Your task to perform on an android device: install app "Microsoft Outlook" Image 0: 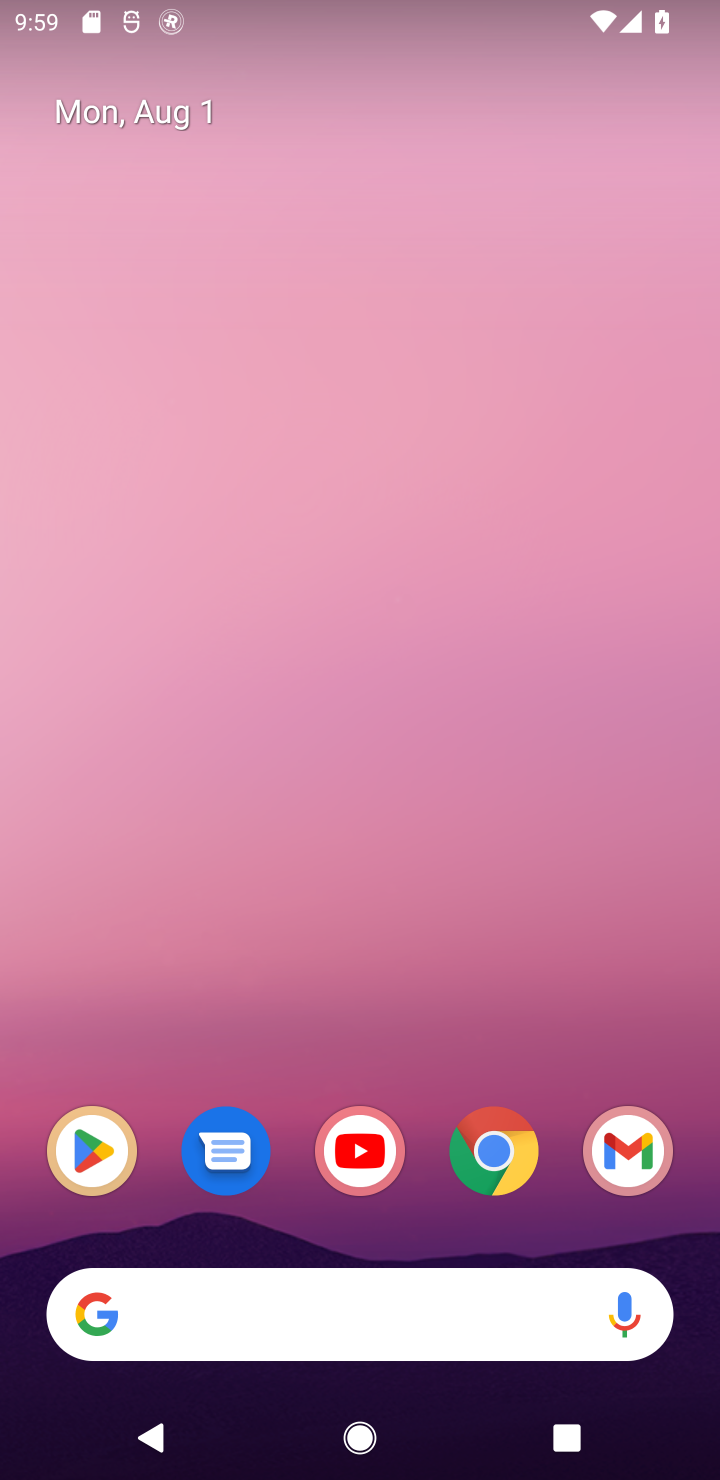
Step 0: click (87, 1144)
Your task to perform on an android device: install app "Microsoft Outlook" Image 1: 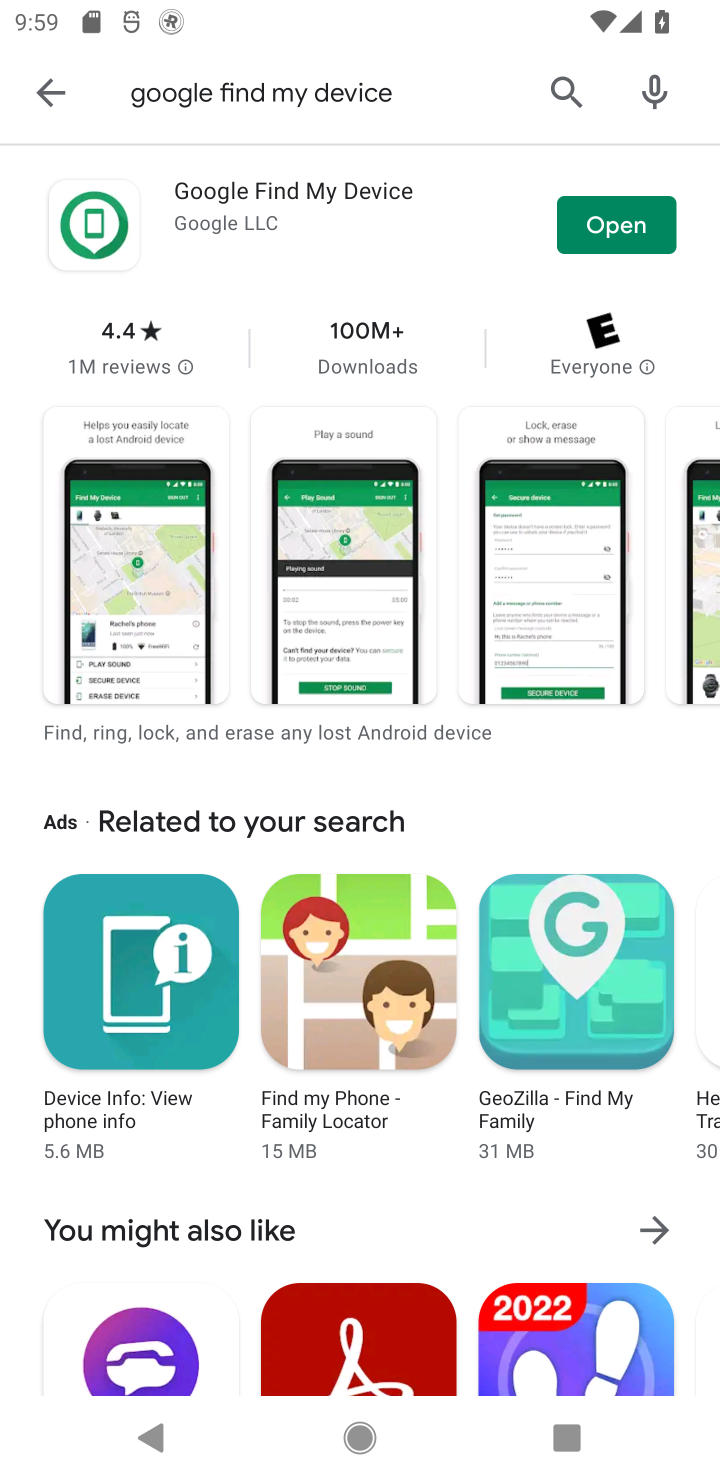
Step 1: click (576, 94)
Your task to perform on an android device: install app "Microsoft Outlook" Image 2: 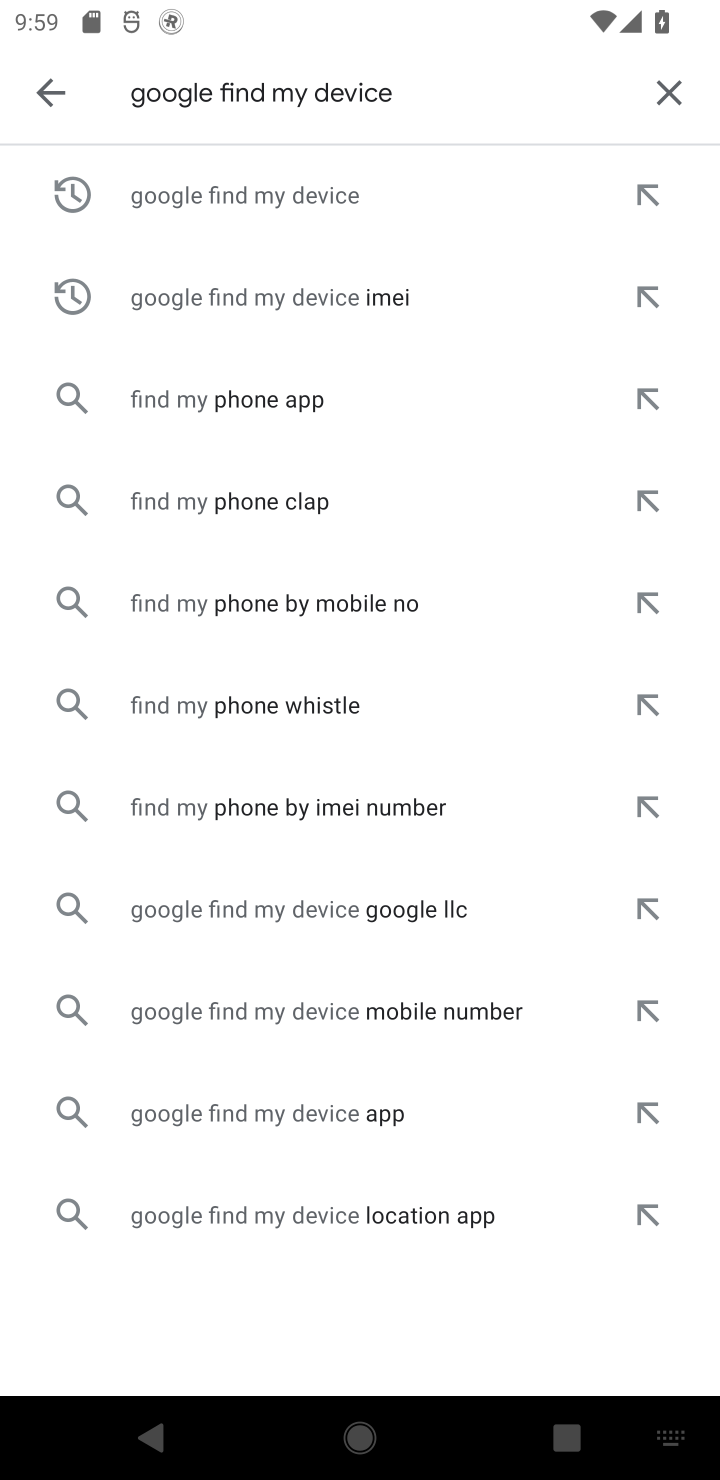
Step 2: click (645, 107)
Your task to perform on an android device: install app "Microsoft Outlook" Image 3: 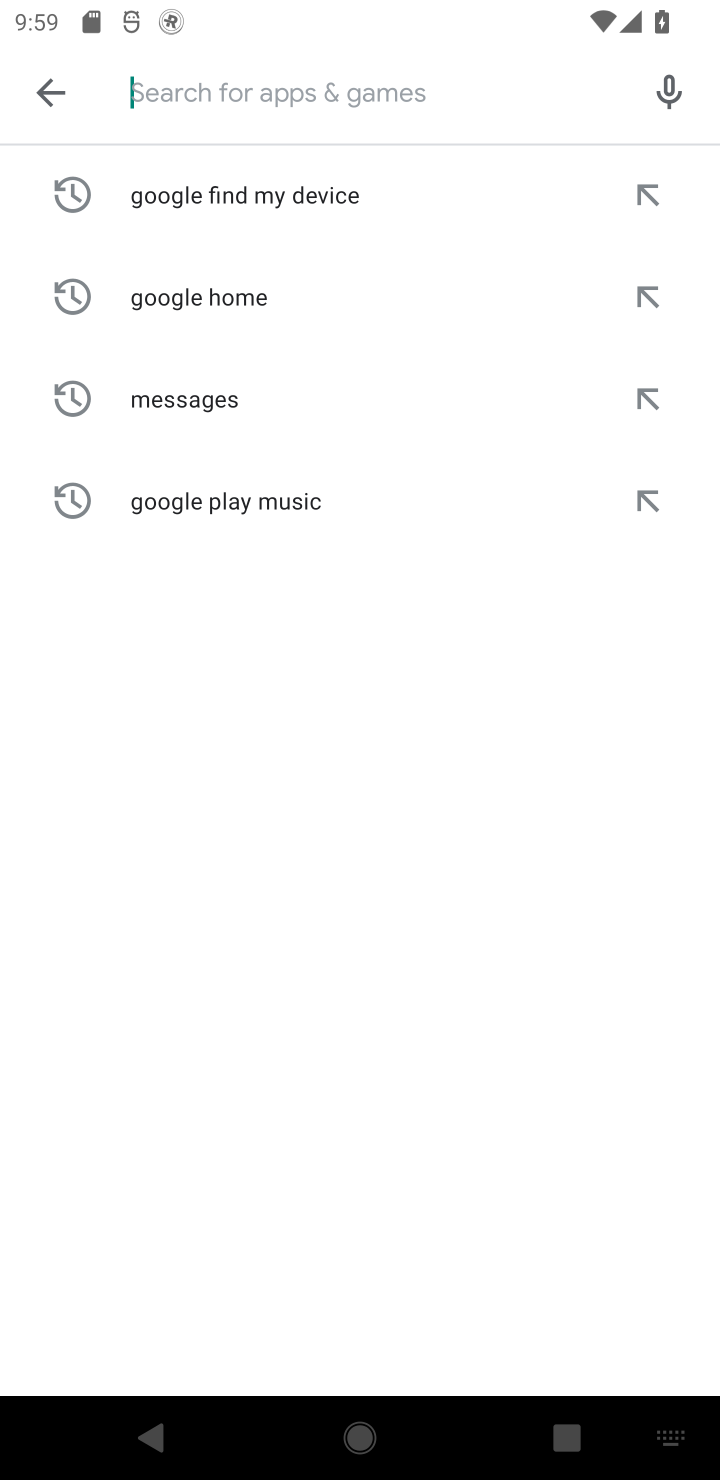
Step 3: type "Microsoft Outlook"
Your task to perform on an android device: install app "Microsoft Outlook" Image 4: 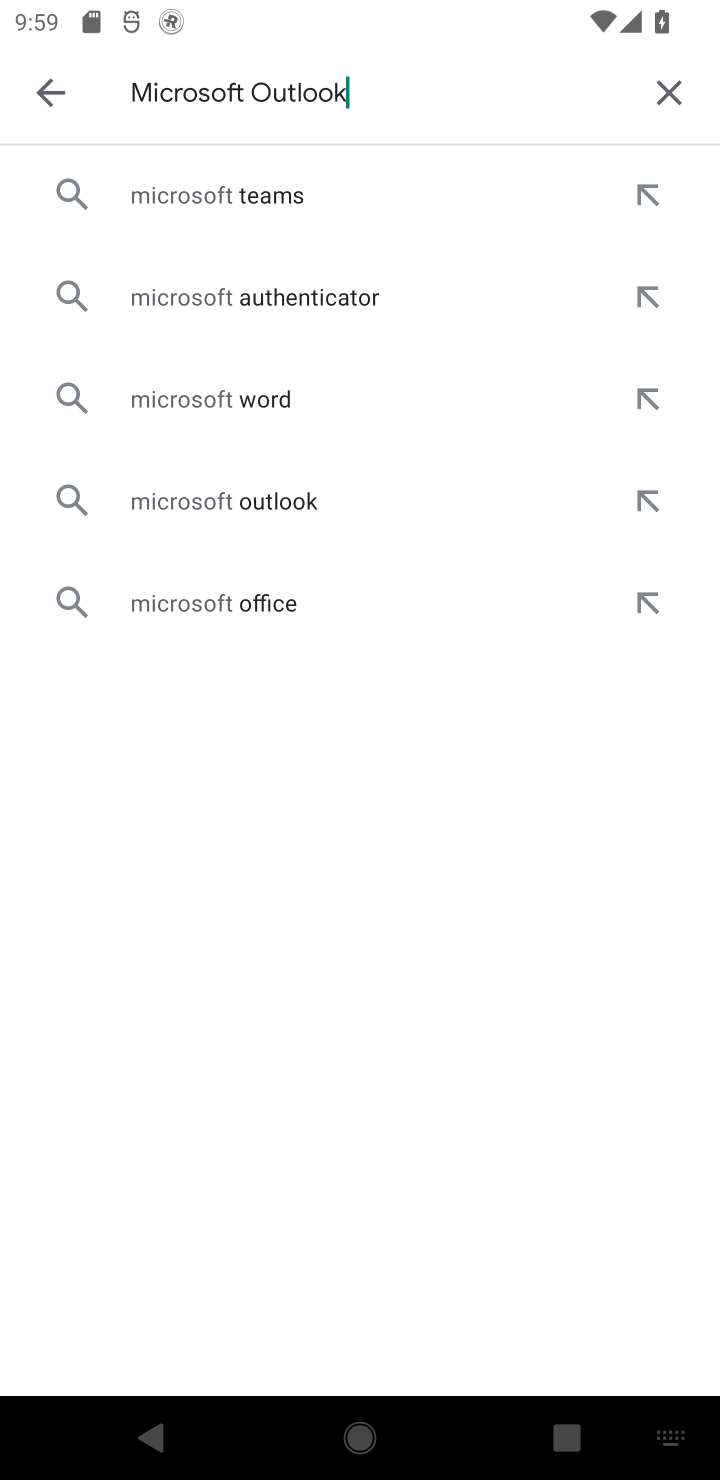
Step 4: type ""
Your task to perform on an android device: install app "Microsoft Outlook" Image 5: 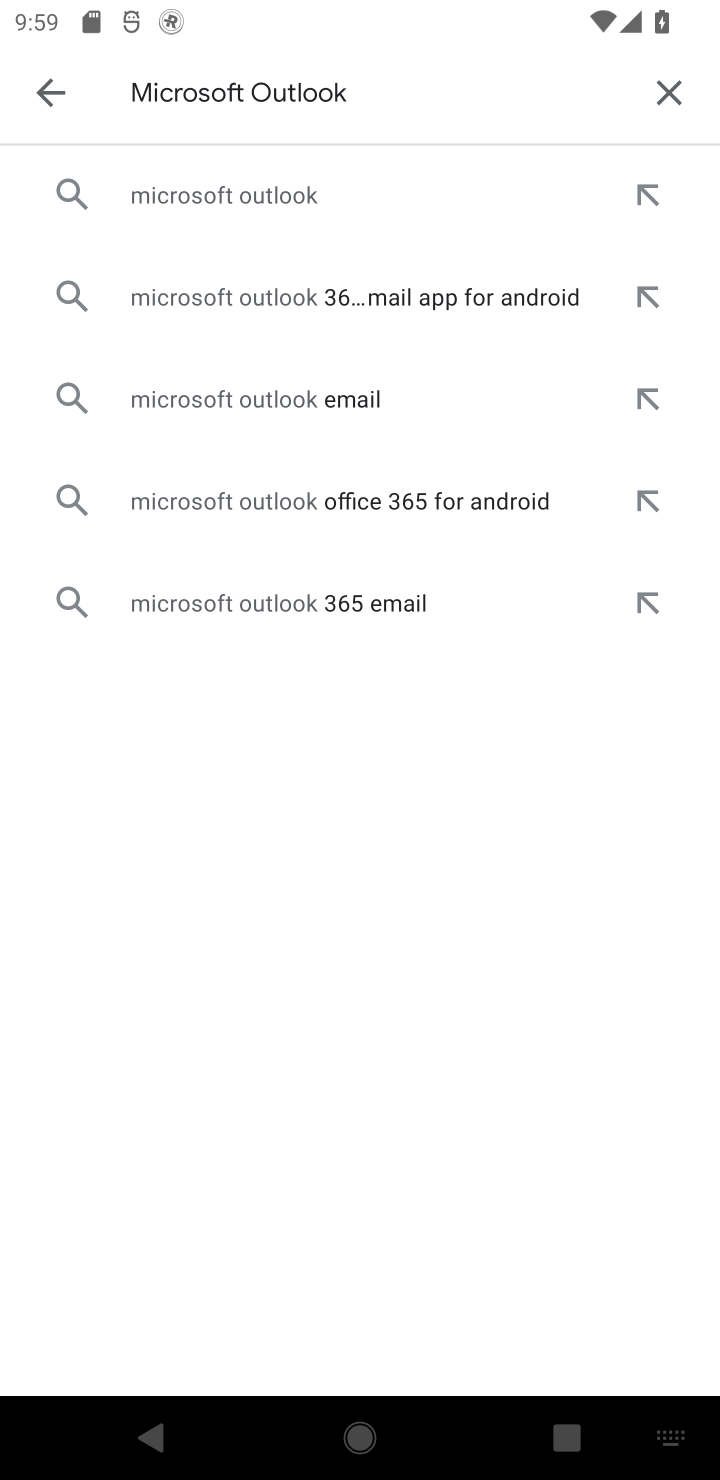
Step 5: click (252, 179)
Your task to perform on an android device: install app "Microsoft Outlook" Image 6: 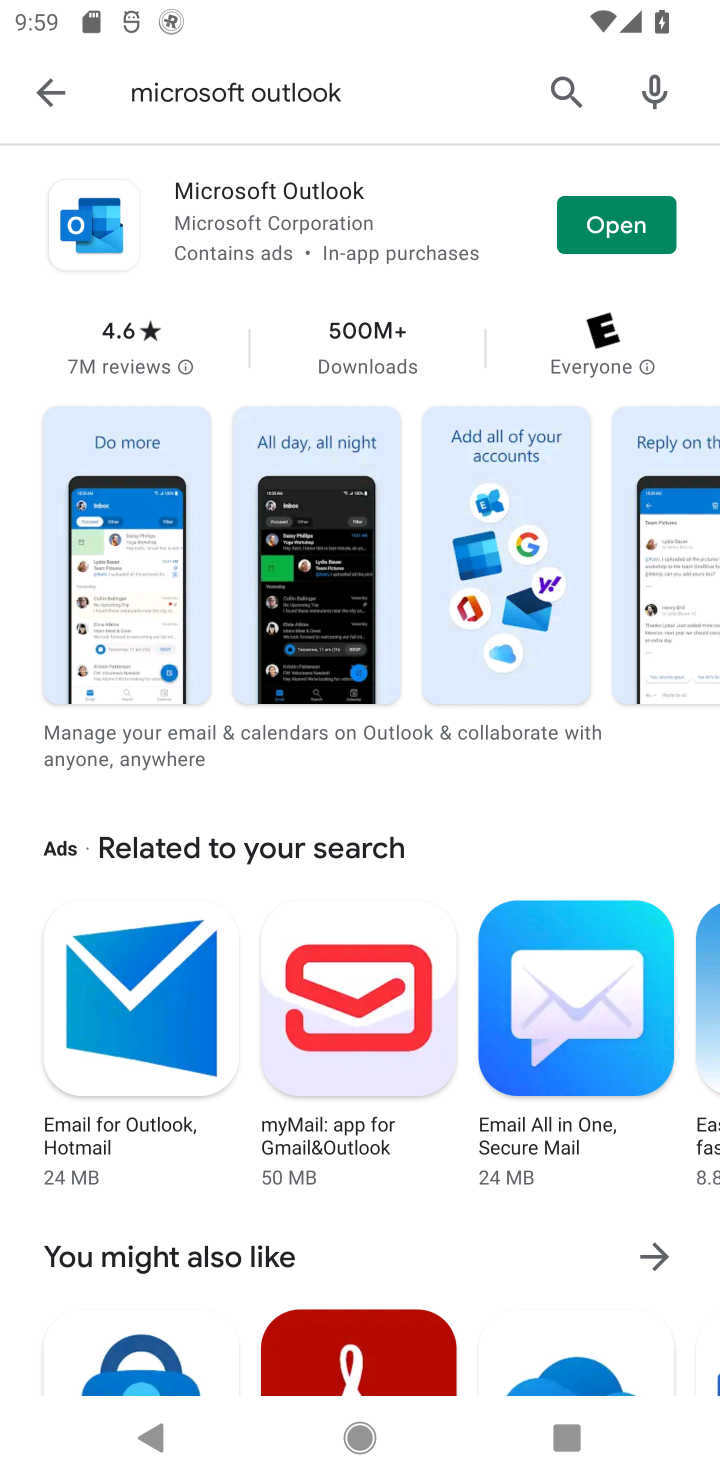
Step 6: task complete